Your task to perform on an android device: Open battery settings Image 0: 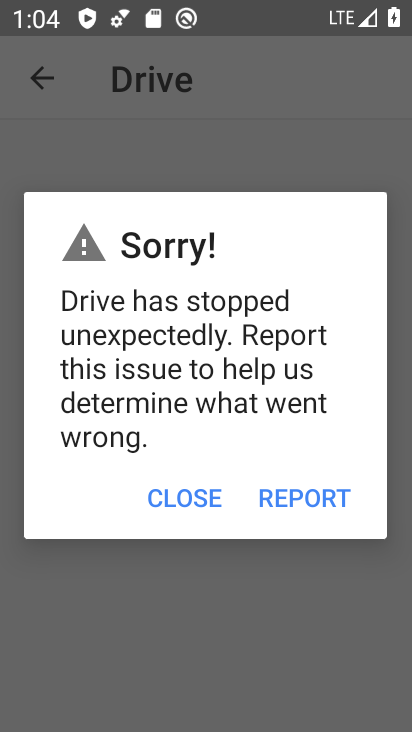
Step 0: press home button
Your task to perform on an android device: Open battery settings Image 1: 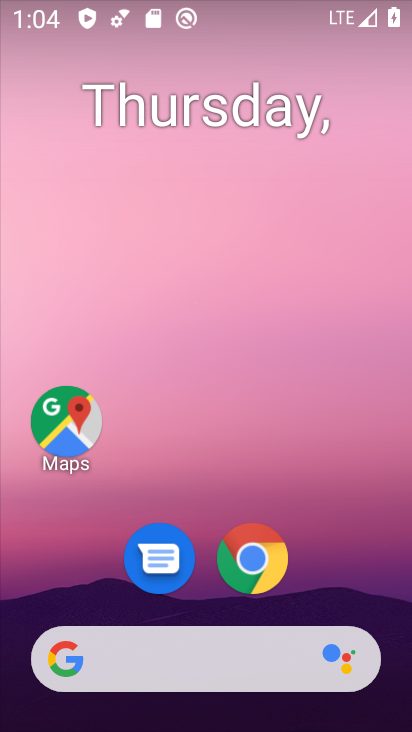
Step 1: drag from (346, 578) to (363, 99)
Your task to perform on an android device: Open battery settings Image 2: 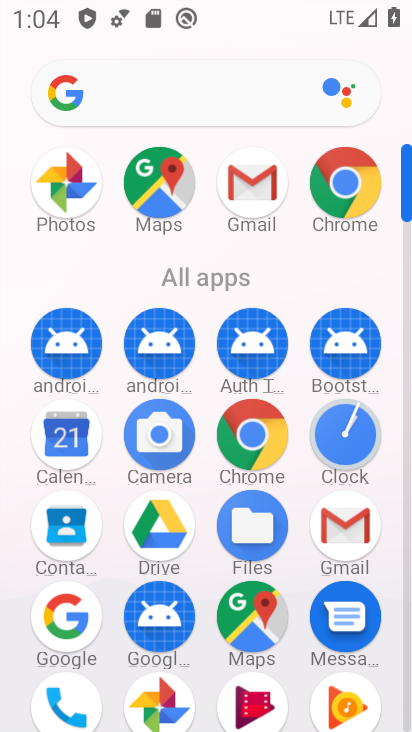
Step 2: click (406, 631)
Your task to perform on an android device: Open battery settings Image 3: 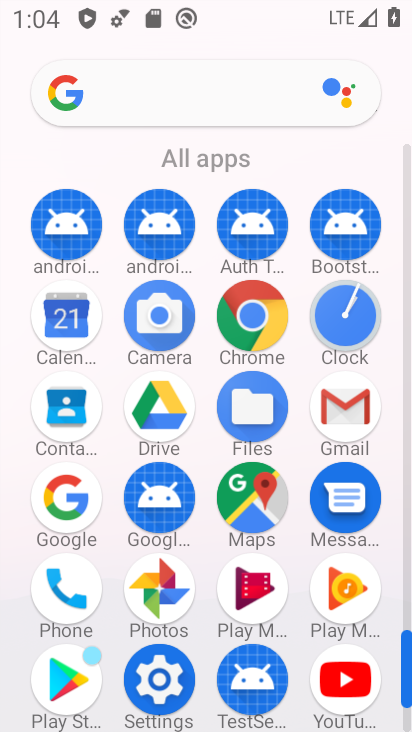
Step 3: click (168, 677)
Your task to perform on an android device: Open battery settings Image 4: 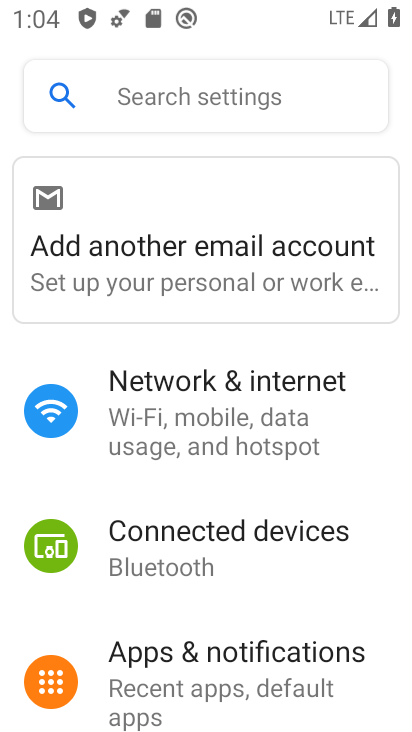
Step 4: drag from (316, 605) to (312, 294)
Your task to perform on an android device: Open battery settings Image 5: 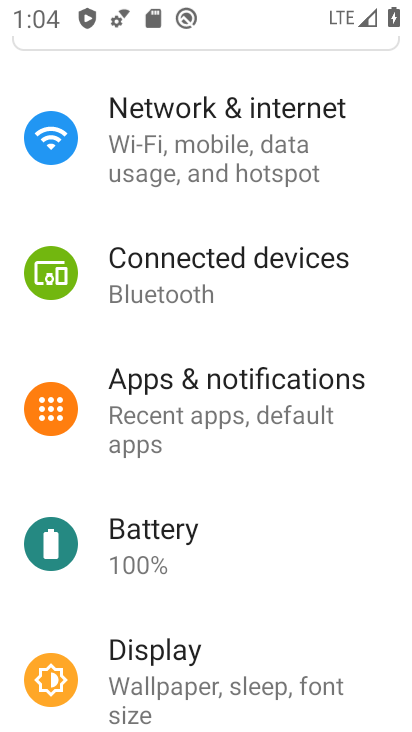
Step 5: drag from (317, 614) to (310, 409)
Your task to perform on an android device: Open battery settings Image 6: 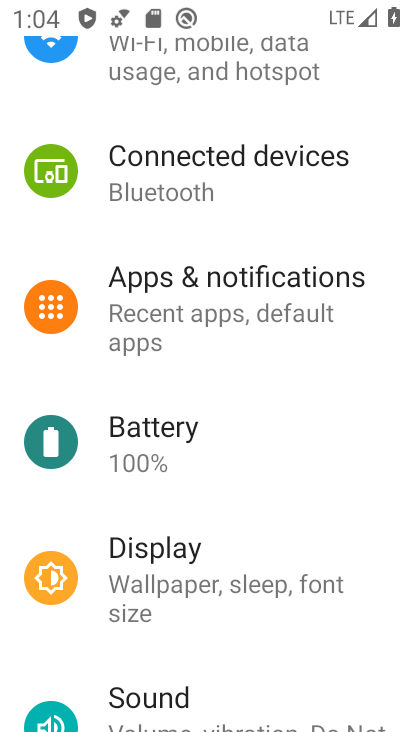
Step 6: drag from (331, 672) to (315, 394)
Your task to perform on an android device: Open battery settings Image 7: 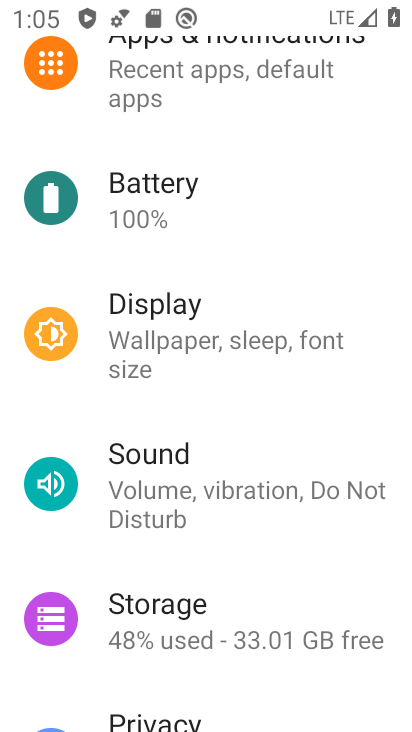
Step 7: click (169, 209)
Your task to perform on an android device: Open battery settings Image 8: 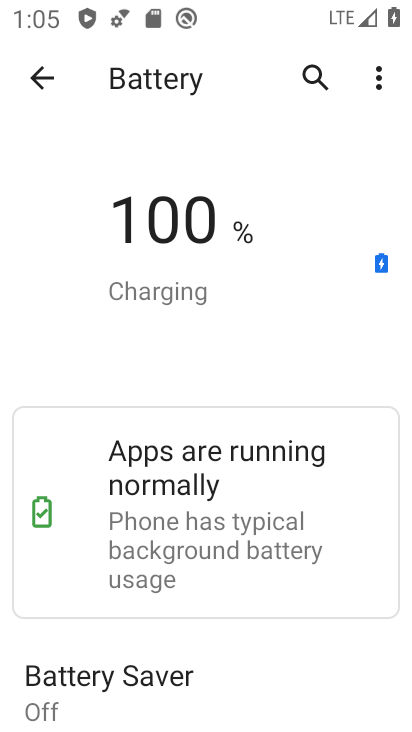
Step 8: task complete